Your task to perform on an android device: turn off priority inbox in the gmail app Image 0: 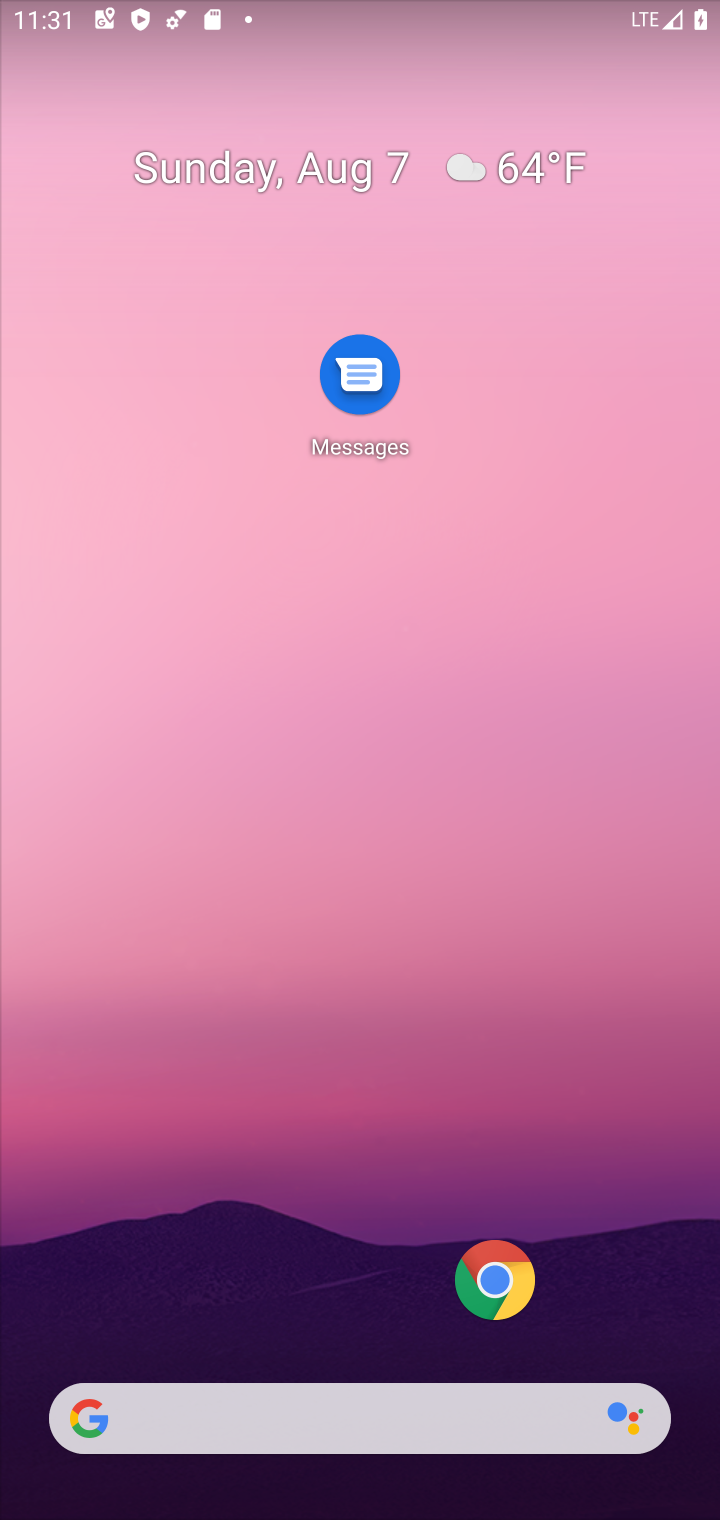
Step 0: drag from (300, 1153) to (490, 225)
Your task to perform on an android device: turn off priority inbox in the gmail app Image 1: 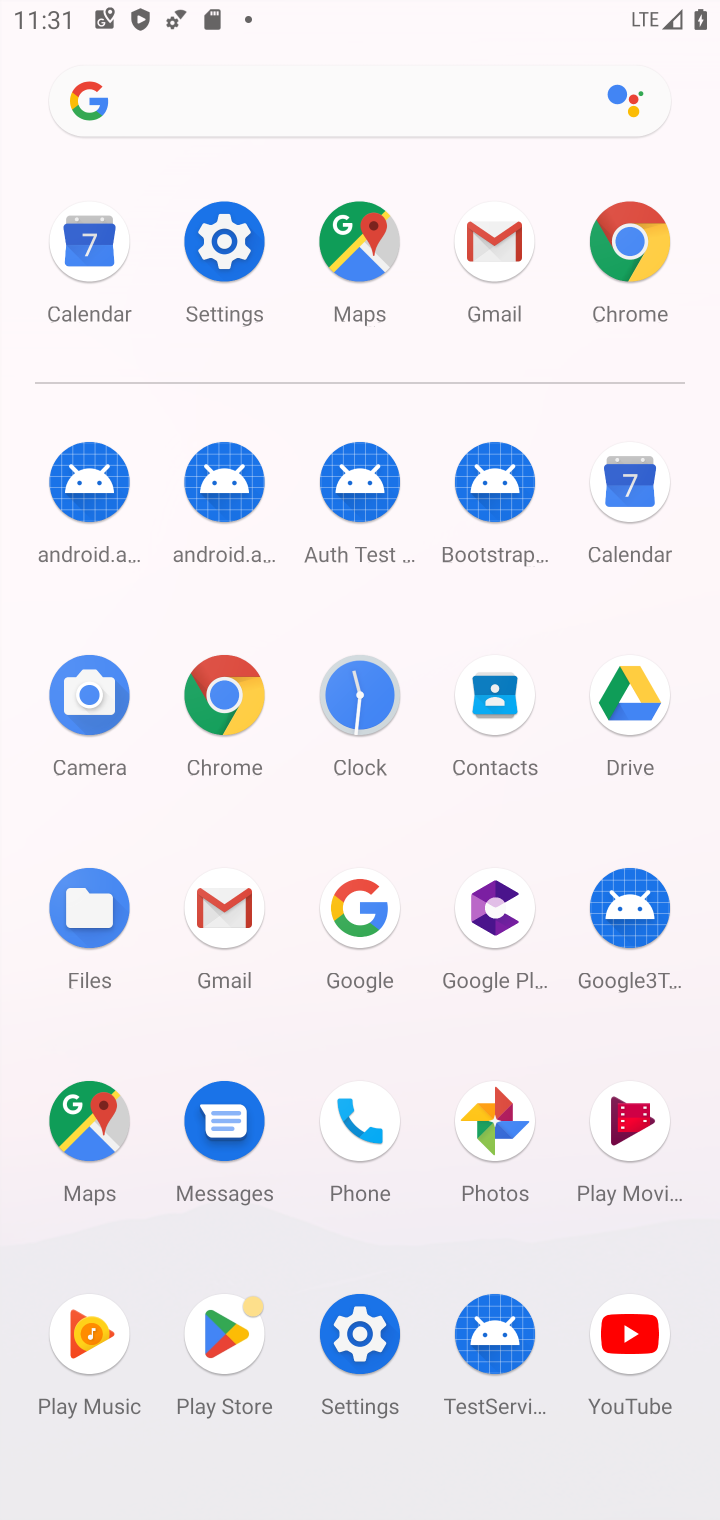
Step 1: click (491, 250)
Your task to perform on an android device: turn off priority inbox in the gmail app Image 2: 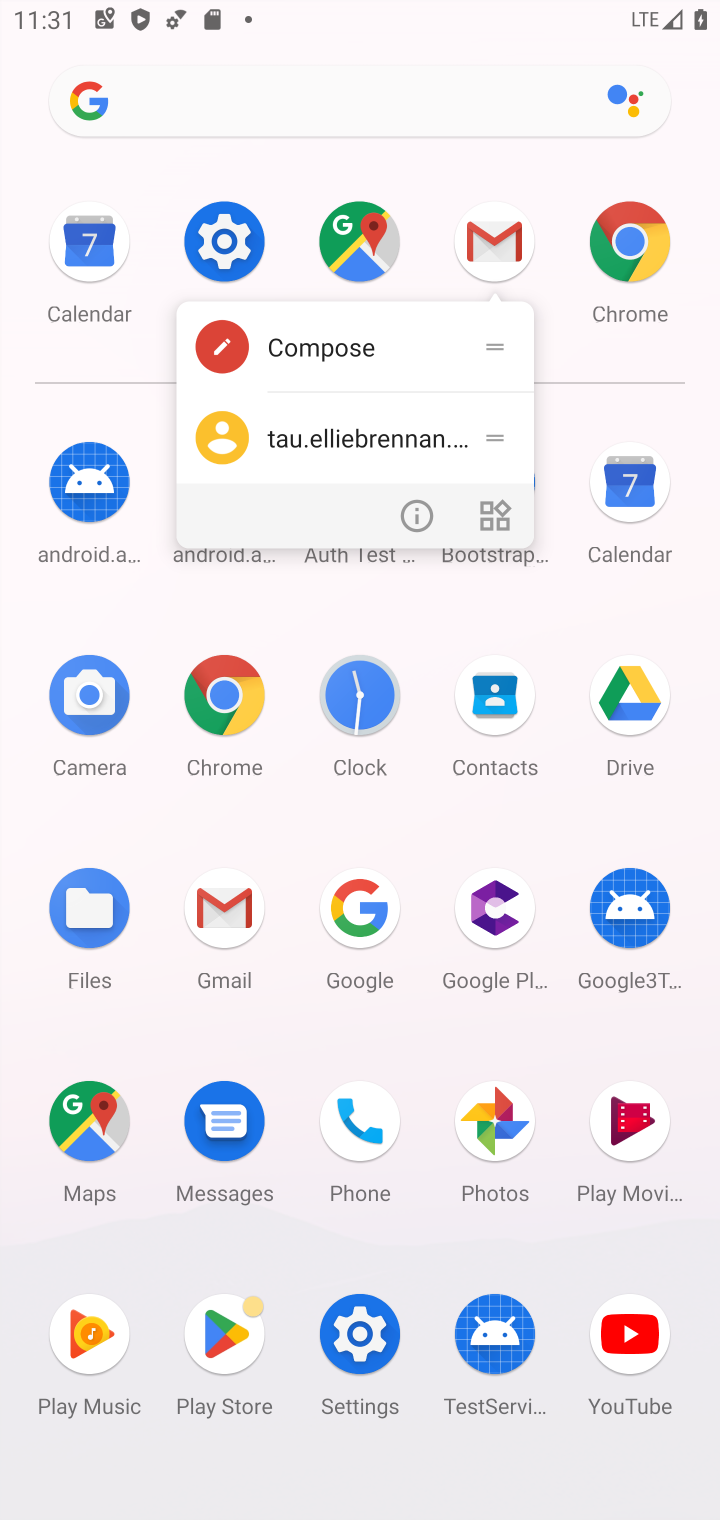
Step 2: click (496, 242)
Your task to perform on an android device: turn off priority inbox in the gmail app Image 3: 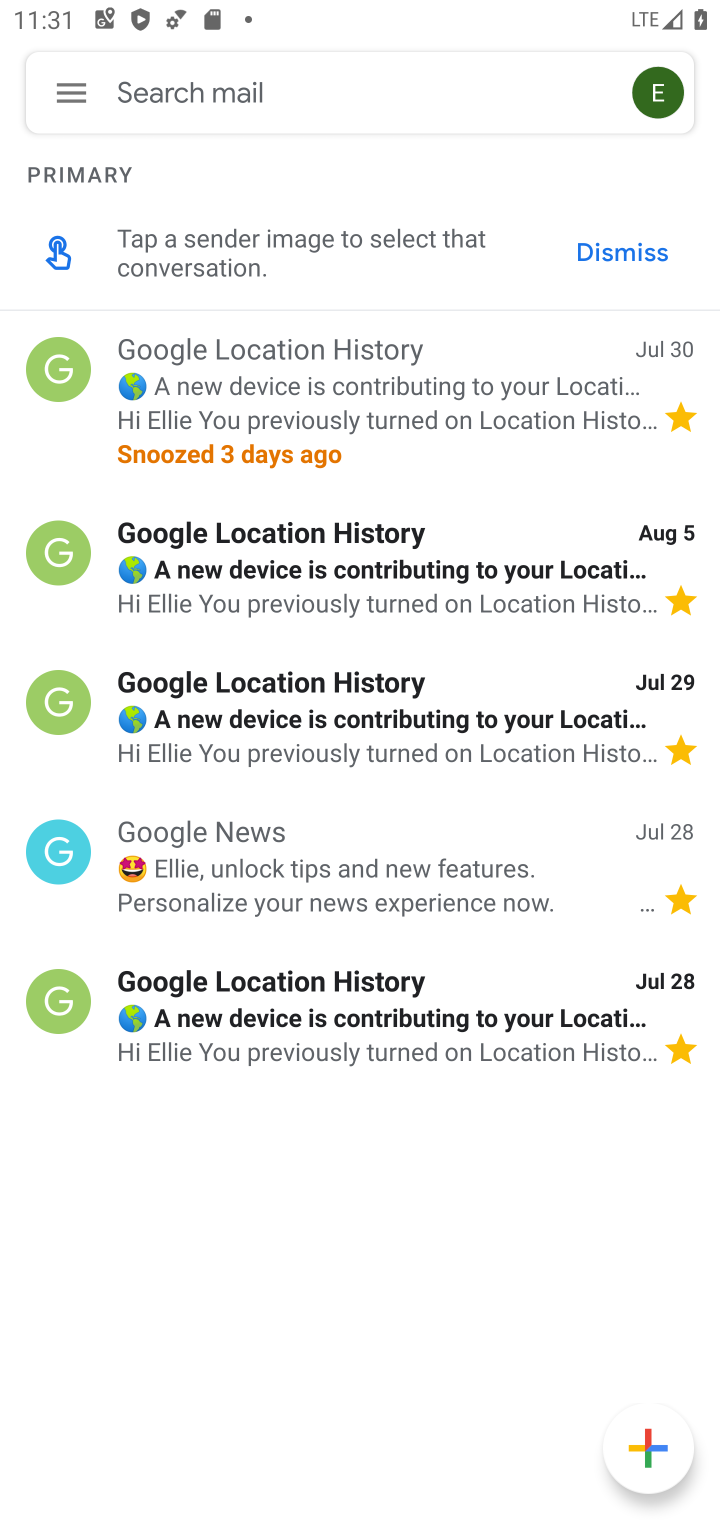
Step 3: click (63, 91)
Your task to perform on an android device: turn off priority inbox in the gmail app Image 4: 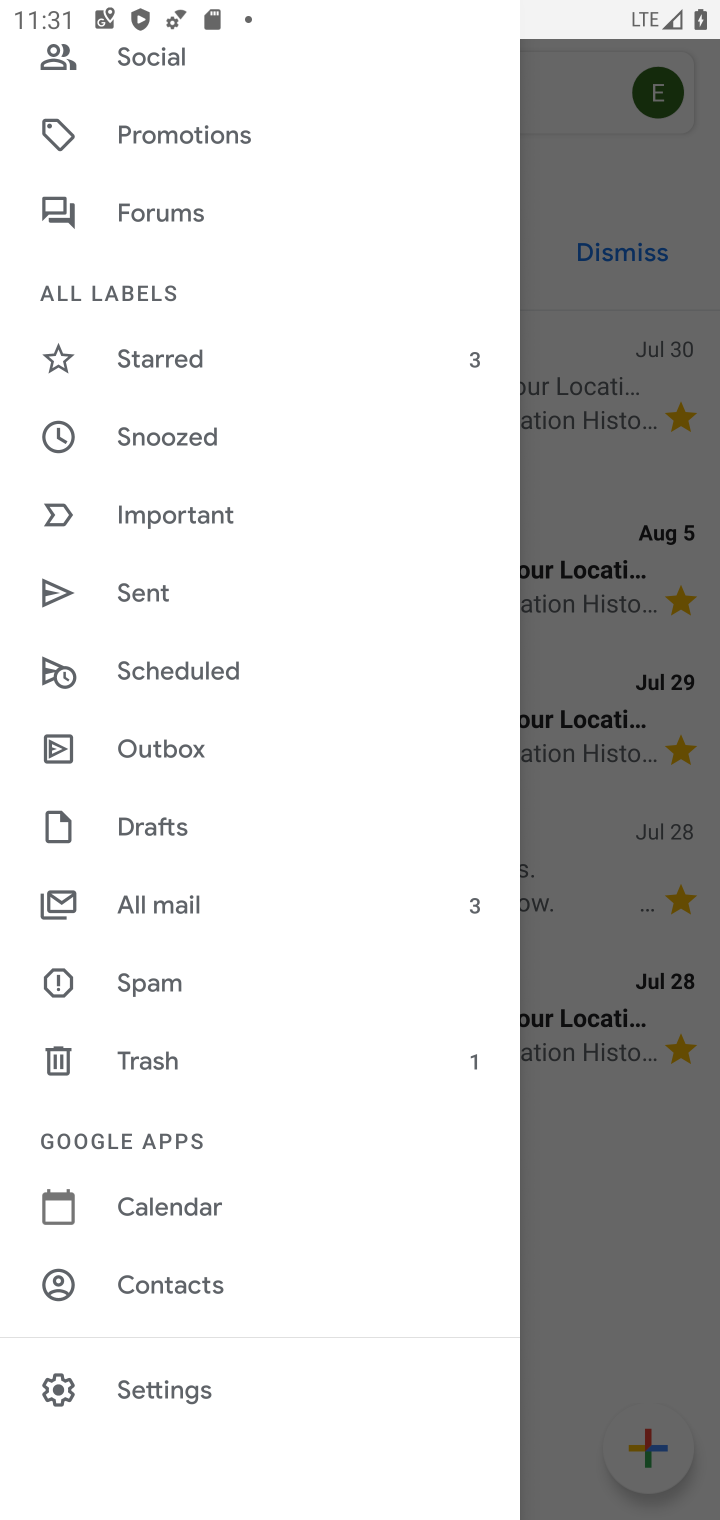
Step 4: click (250, 1404)
Your task to perform on an android device: turn off priority inbox in the gmail app Image 5: 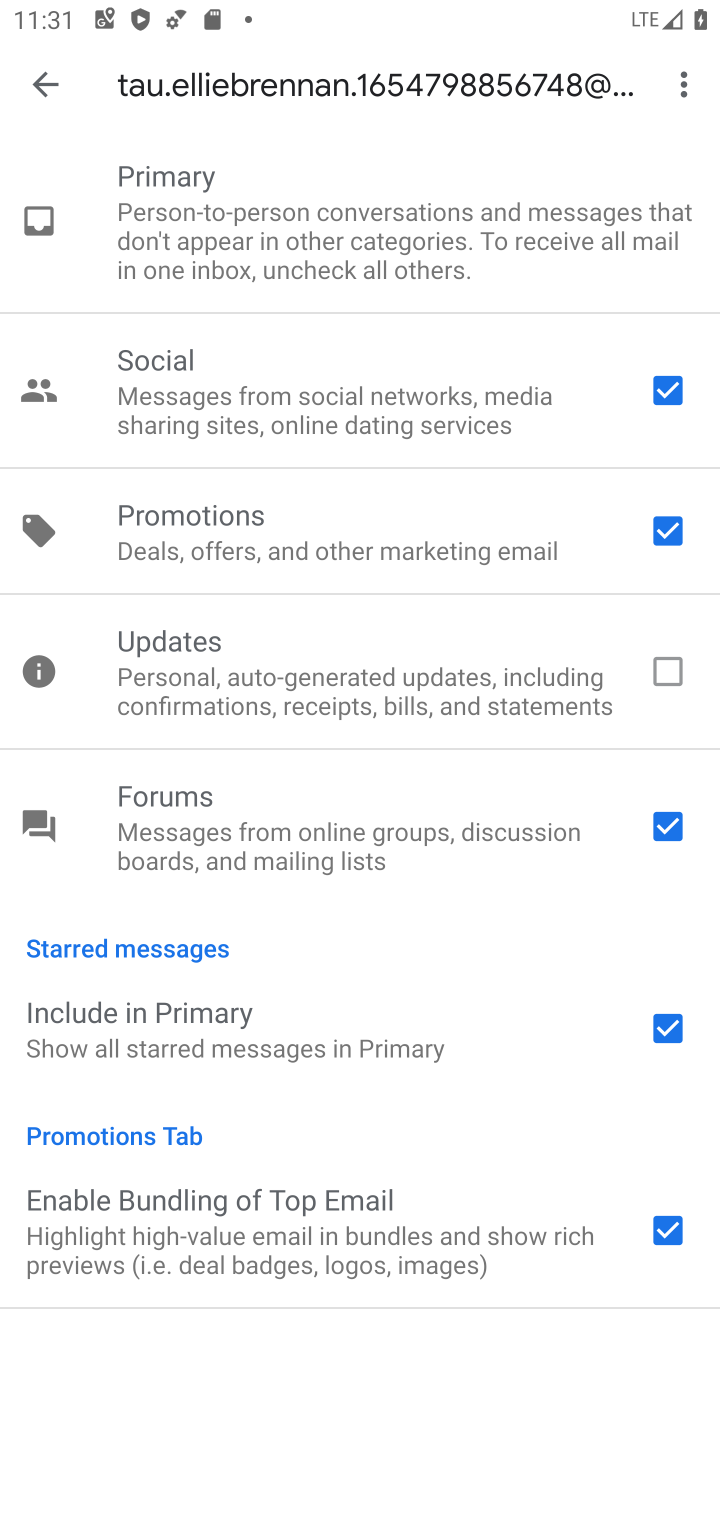
Step 5: drag from (342, 253) to (412, 1408)
Your task to perform on an android device: turn off priority inbox in the gmail app Image 6: 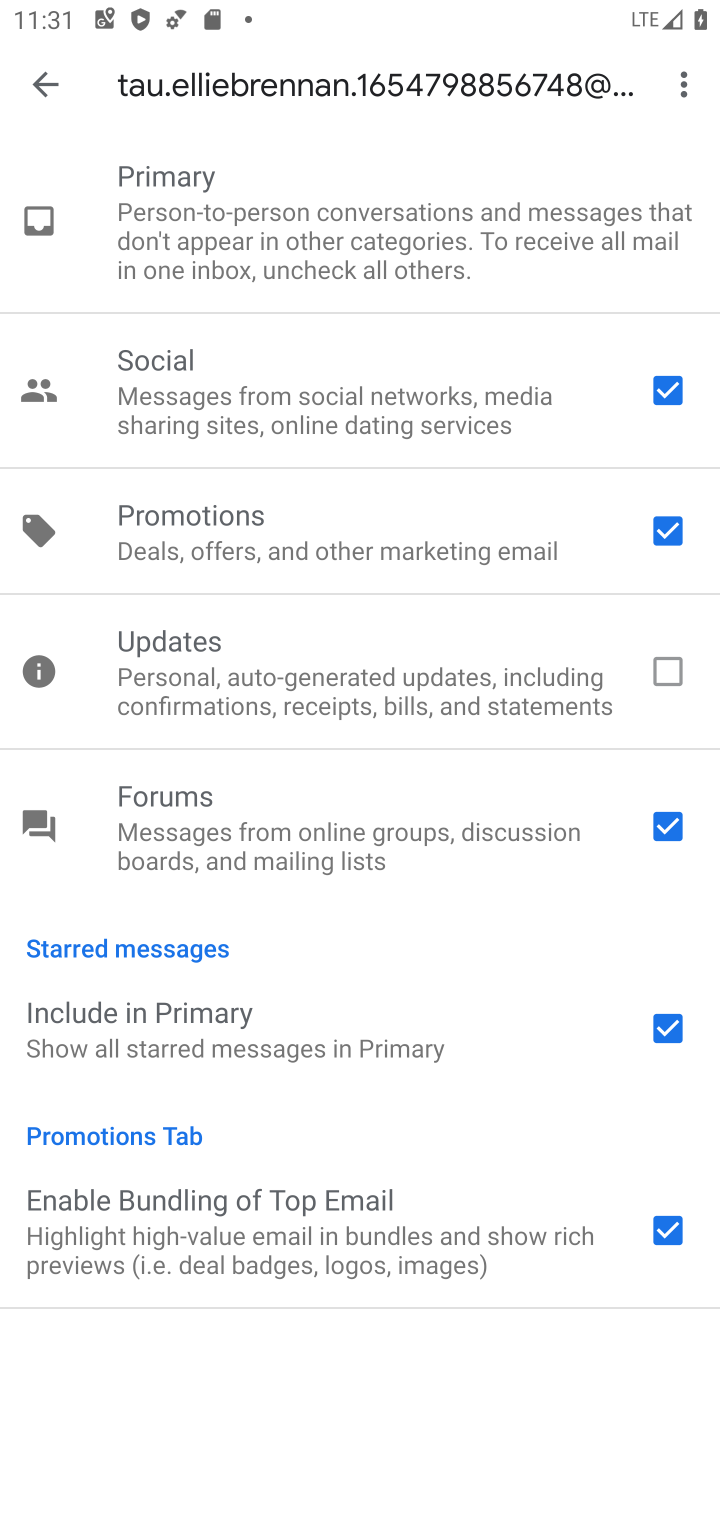
Step 6: click (23, 78)
Your task to perform on an android device: turn off priority inbox in the gmail app Image 7: 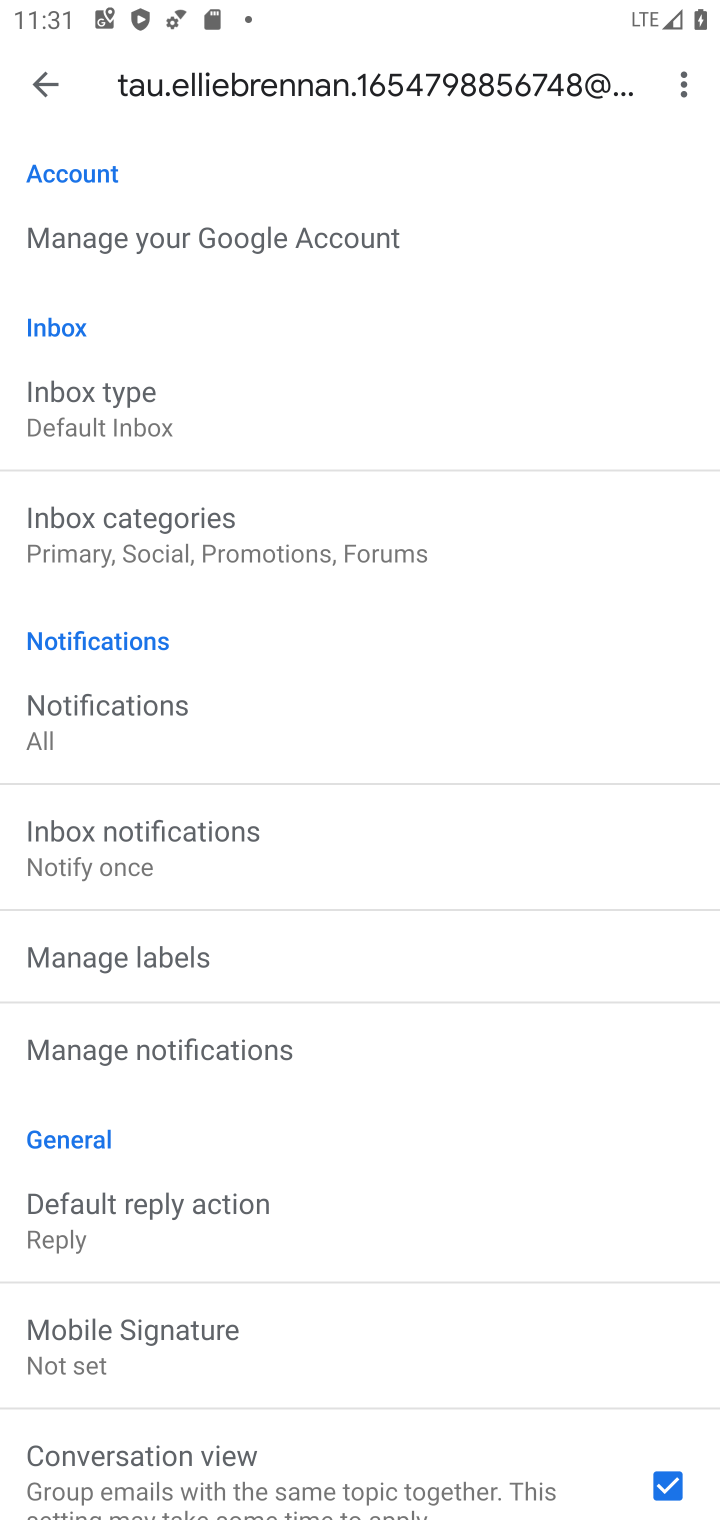
Step 7: click (227, 401)
Your task to perform on an android device: turn off priority inbox in the gmail app Image 8: 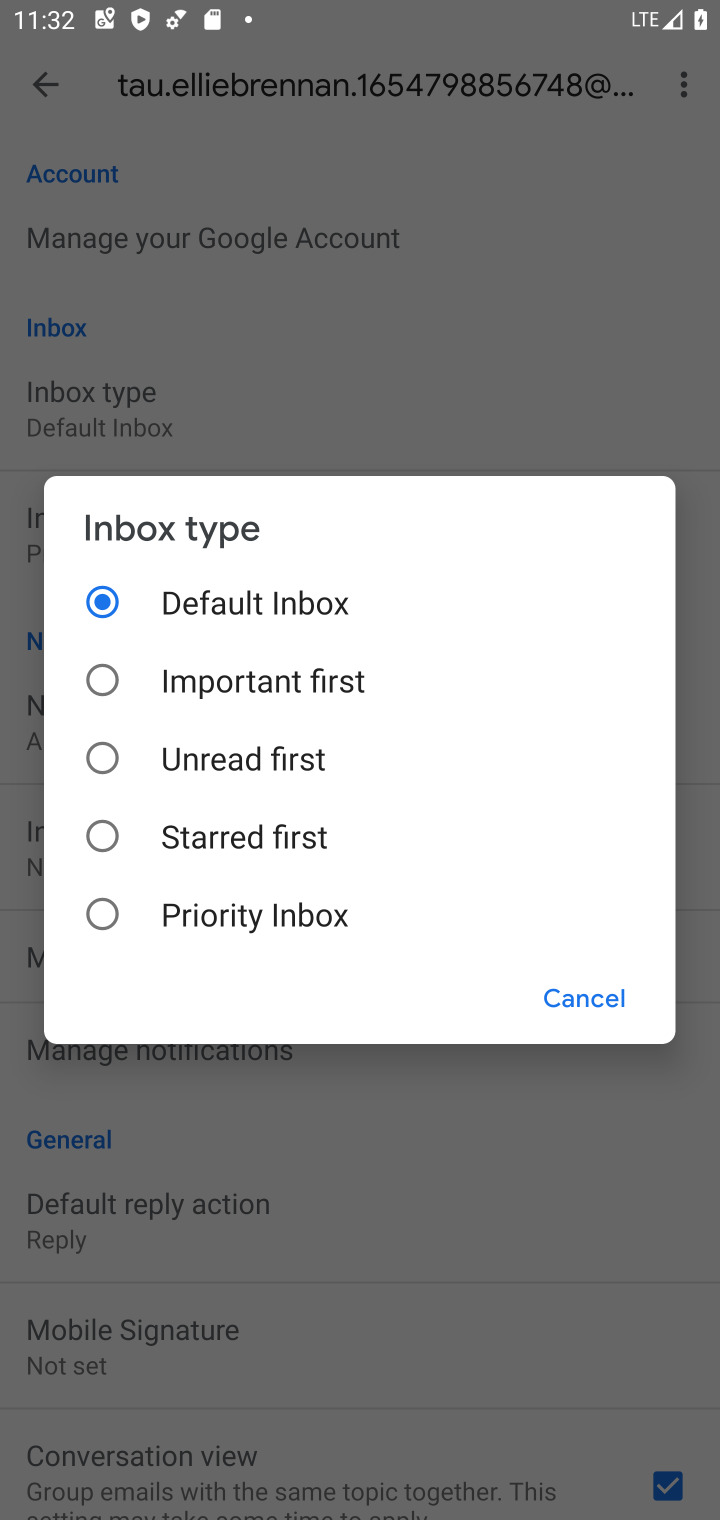
Step 8: task complete